Your task to perform on an android device: Go to Reddit.com Image 0: 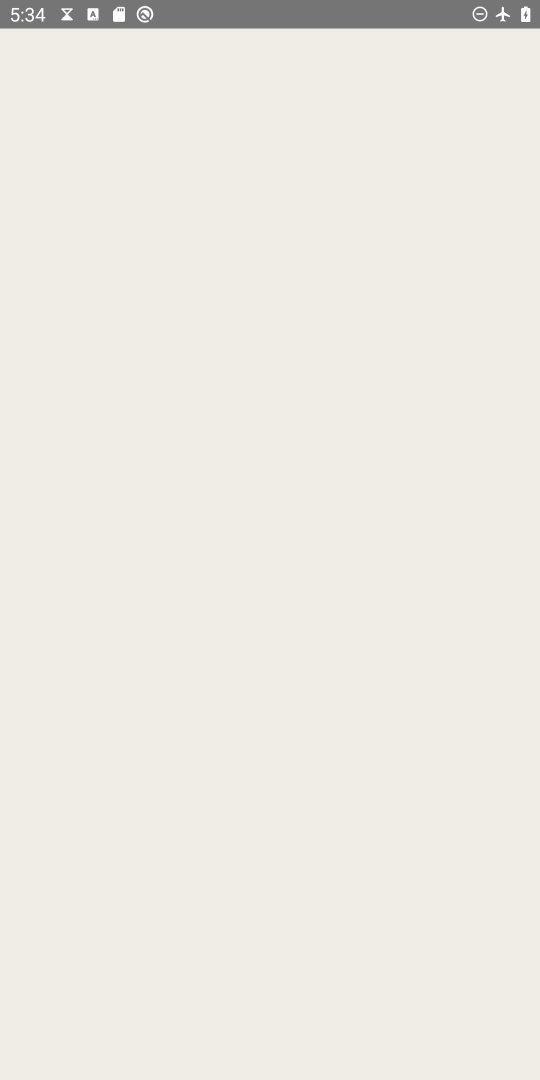
Step 0: press home button
Your task to perform on an android device: Go to Reddit.com Image 1: 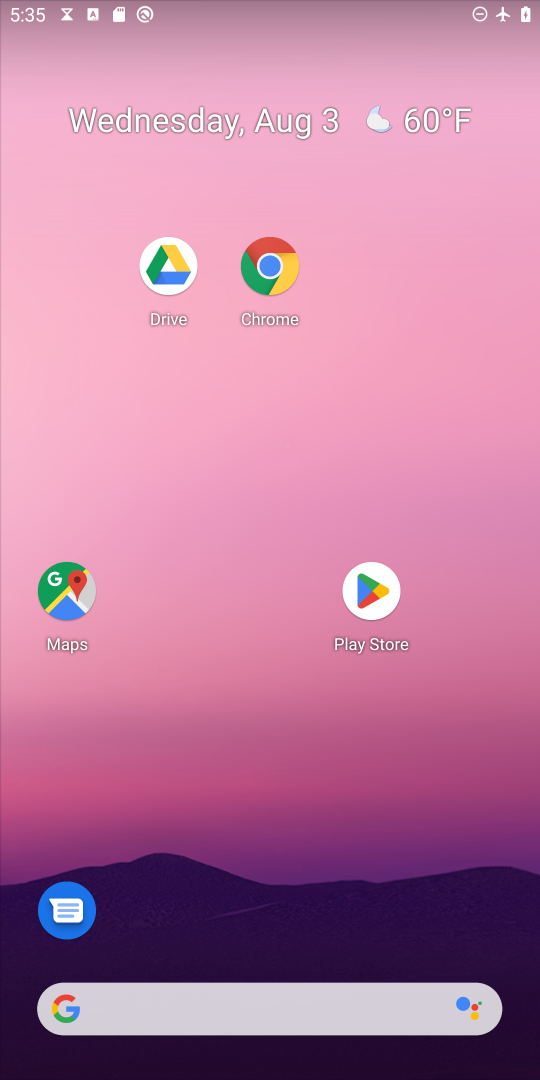
Step 1: drag from (184, 1016) to (387, 5)
Your task to perform on an android device: Go to Reddit.com Image 2: 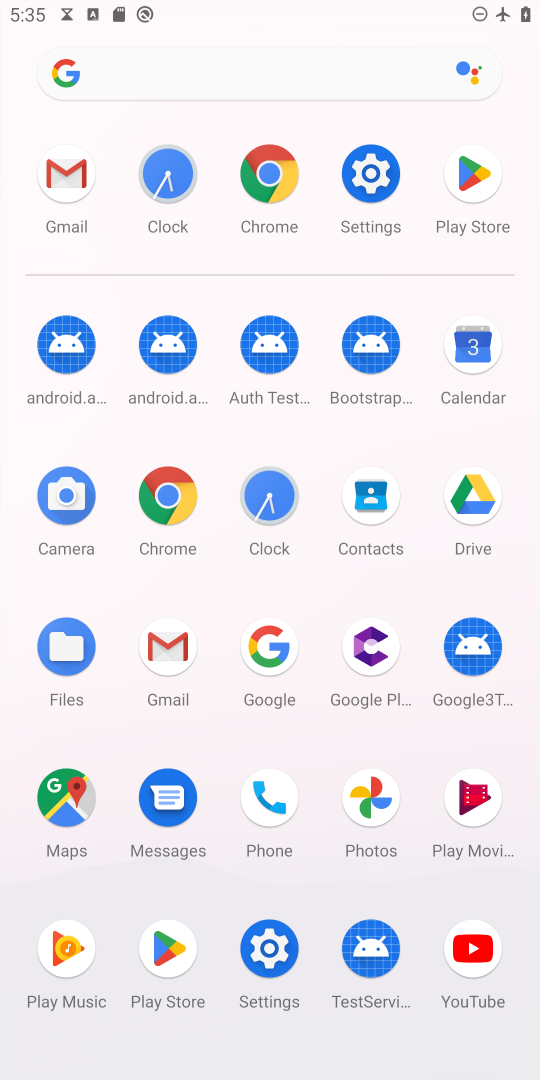
Step 2: drag from (352, 1003) to (319, 253)
Your task to perform on an android device: Go to Reddit.com Image 3: 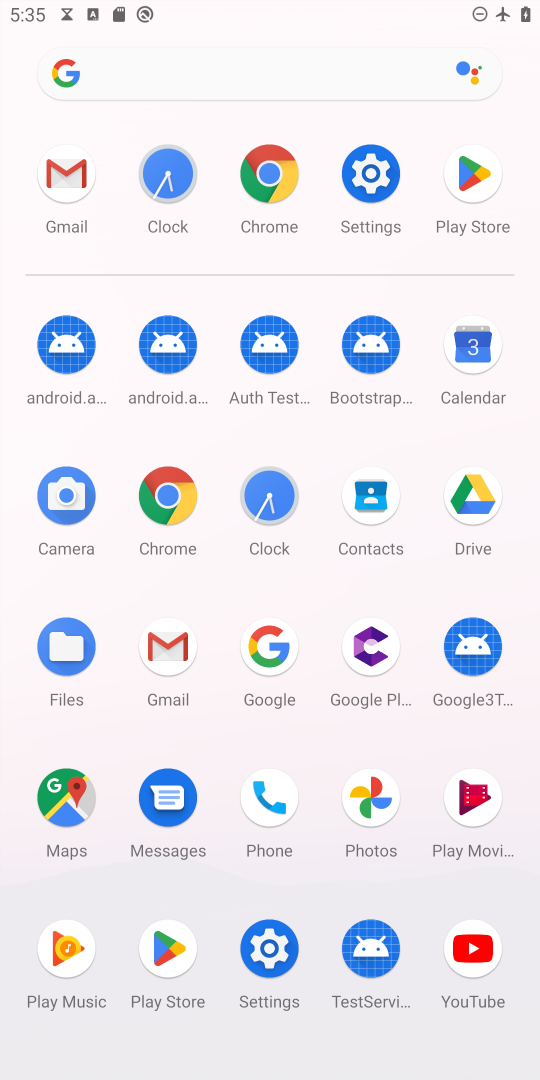
Step 3: click (163, 509)
Your task to perform on an android device: Go to Reddit.com Image 4: 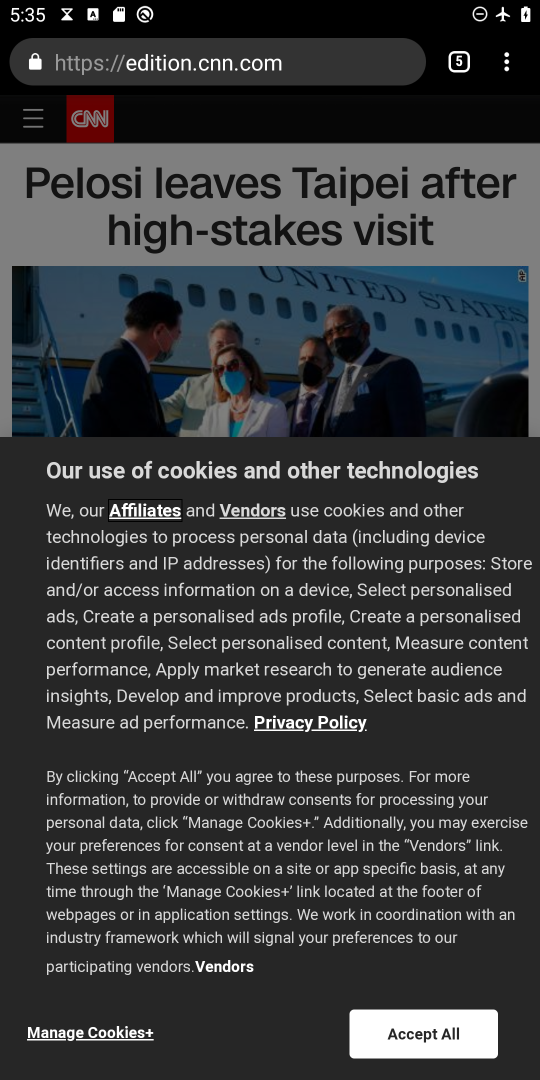
Step 4: drag from (509, 68) to (352, 113)
Your task to perform on an android device: Go to Reddit.com Image 5: 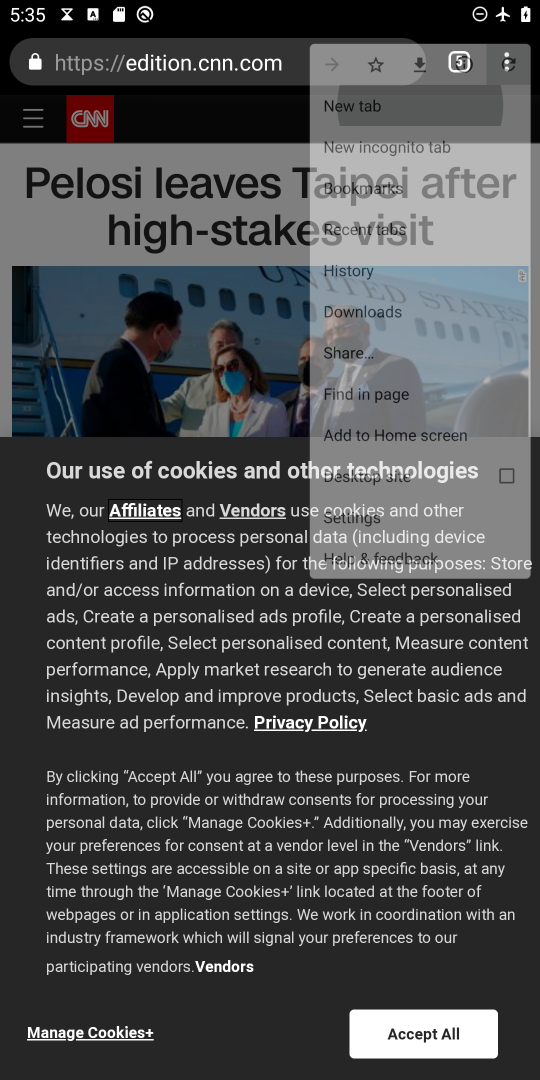
Step 5: click (338, 117)
Your task to perform on an android device: Go to Reddit.com Image 6: 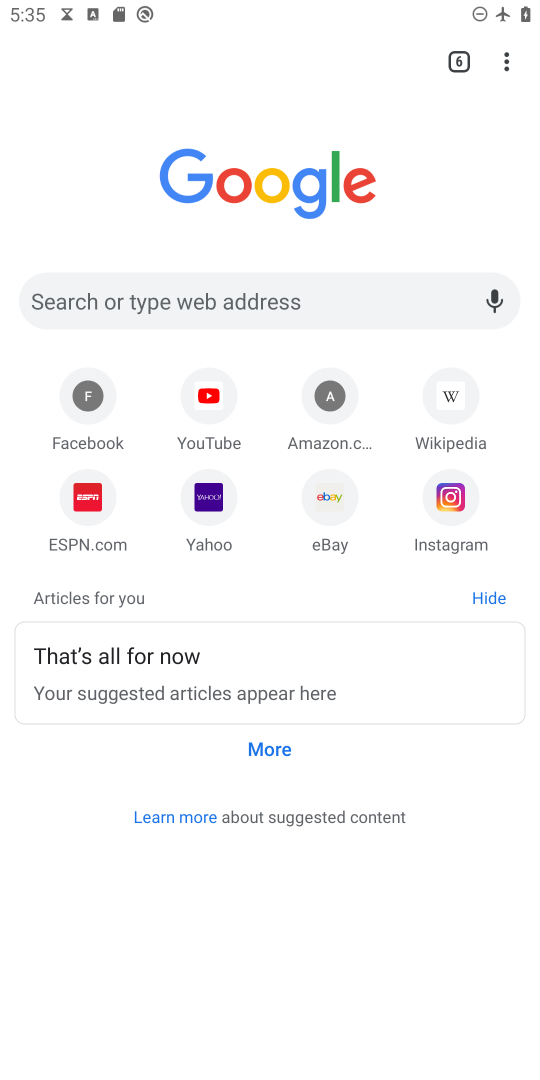
Step 6: click (305, 304)
Your task to perform on an android device: Go to Reddit.com Image 7: 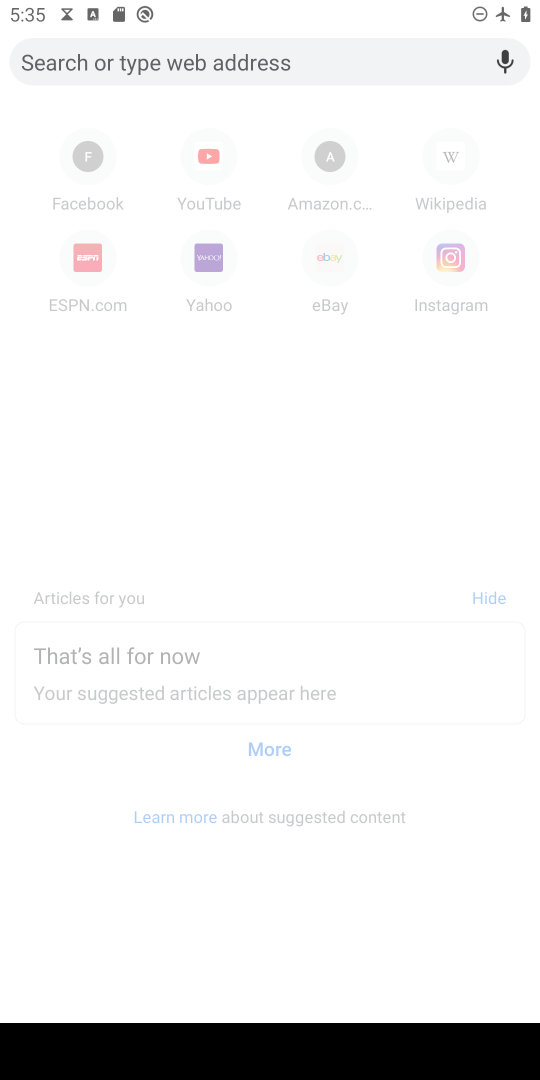
Step 7: type "reddit.com"
Your task to perform on an android device: Go to Reddit.com Image 8: 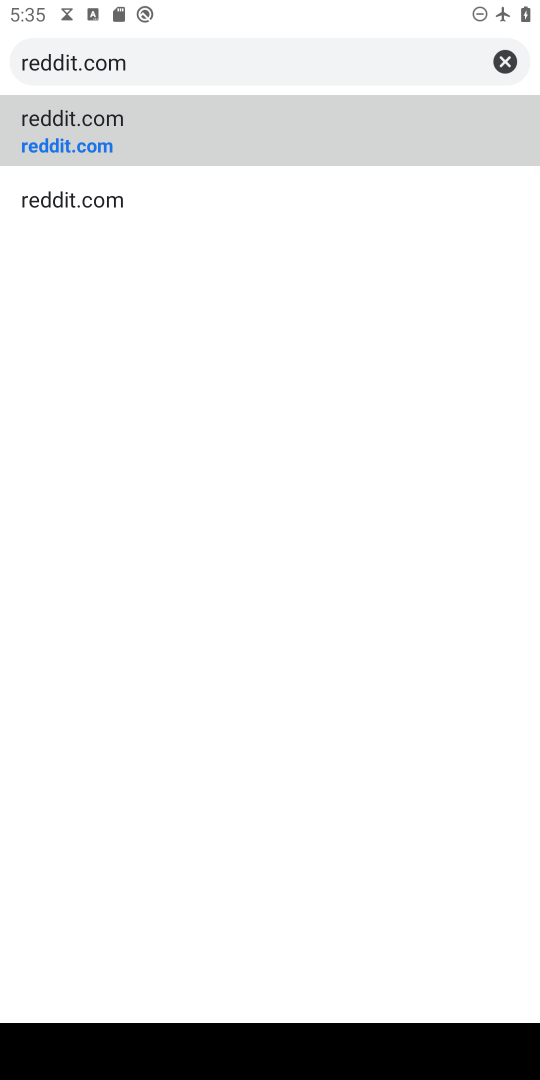
Step 8: click (125, 132)
Your task to perform on an android device: Go to Reddit.com Image 9: 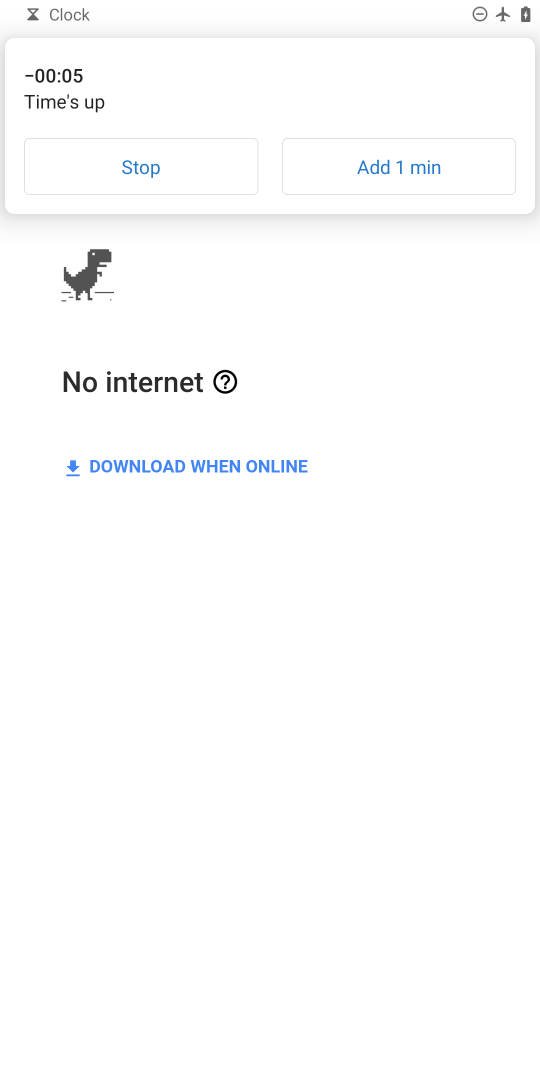
Step 9: click (190, 163)
Your task to perform on an android device: Go to Reddit.com Image 10: 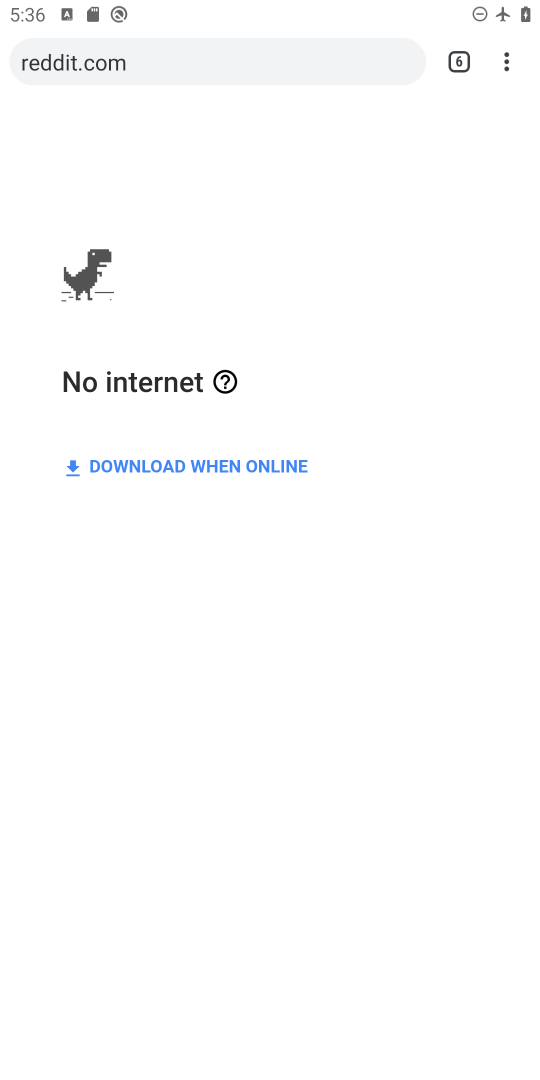
Step 10: task complete